Your task to perform on an android device: create a new album in the google photos Image 0: 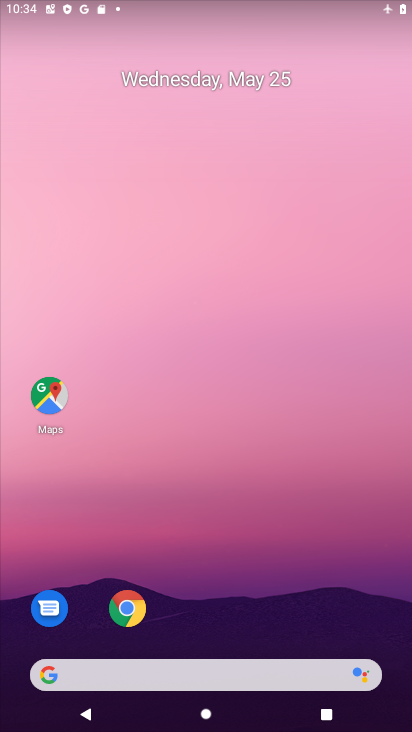
Step 0: drag from (215, 645) to (264, 0)
Your task to perform on an android device: create a new album in the google photos Image 1: 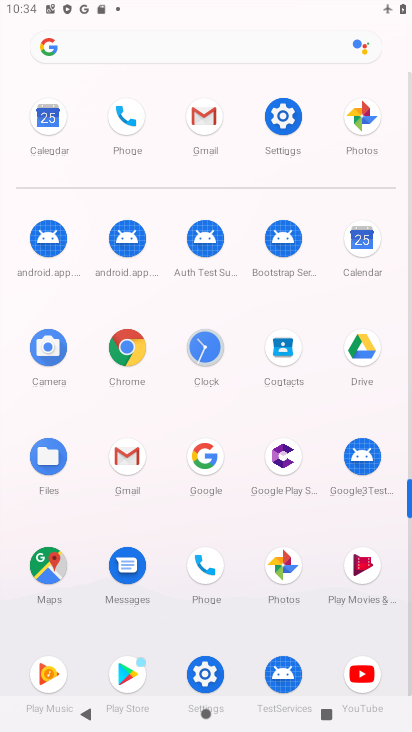
Step 1: click (353, 120)
Your task to perform on an android device: create a new album in the google photos Image 2: 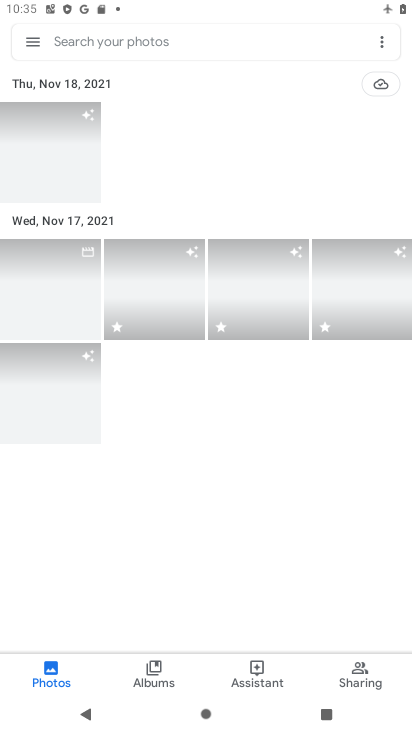
Step 2: click (53, 677)
Your task to perform on an android device: create a new album in the google photos Image 3: 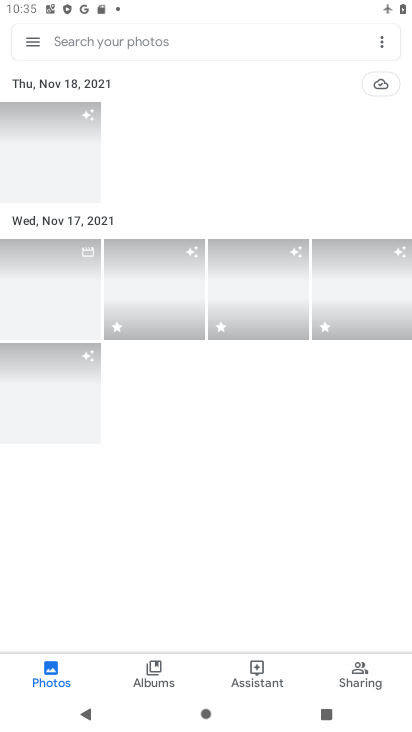
Step 3: click (160, 288)
Your task to perform on an android device: create a new album in the google photos Image 4: 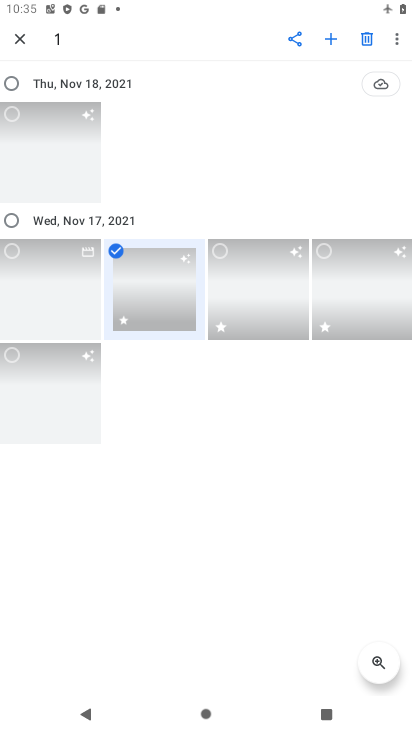
Step 4: click (252, 292)
Your task to perform on an android device: create a new album in the google photos Image 5: 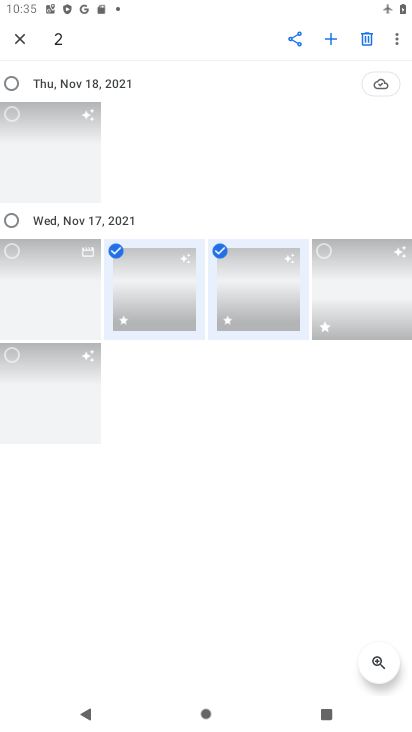
Step 5: click (329, 45)
Your task to perform on an android device: create a new album in the google photos Image 6: 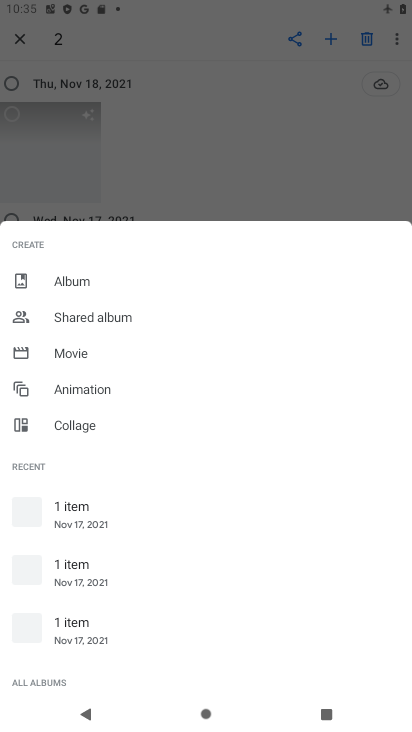
Step 6: click (83, 283)
Your task to perform on an android device: create a new album in the google photos Image 7: 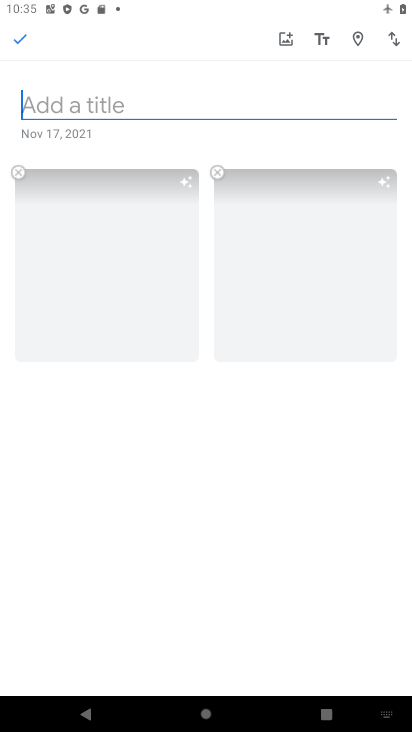
Step 7: click (25, 115)
Your task to perform on an android device: create a new album in the google photos Image 8: 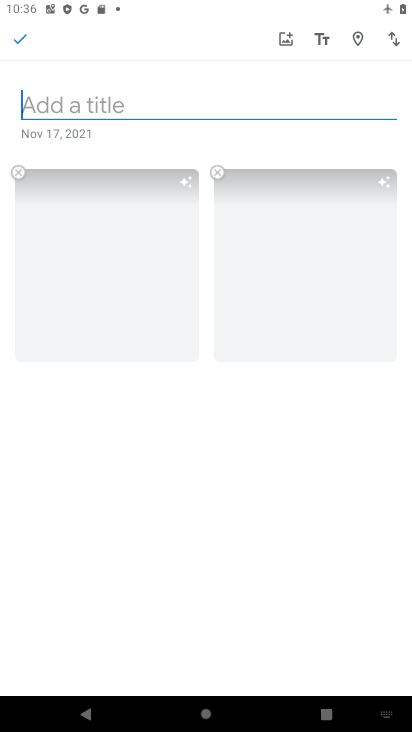
Step 8: type "new 3"
Your task to perform on an android device: create a new album in the google photos Image 9: 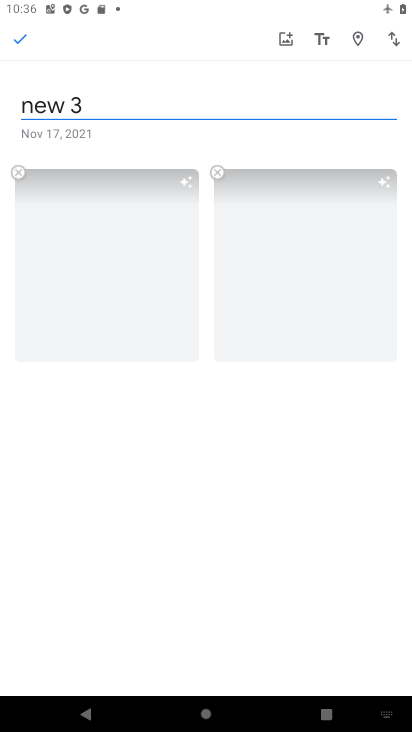
Step 9: click (25, 31)
Your task to perform on an android device: create a new album in the google photos Image 10: 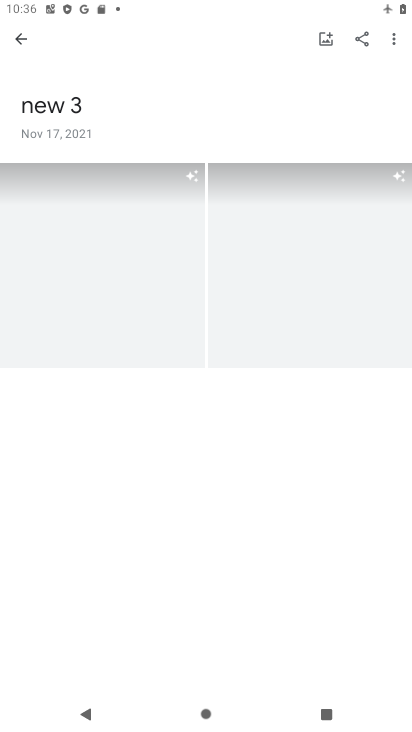
Step 10: task complete